Your task to perform on an android device: see tabs open on other devices in the chrome app Image 0: 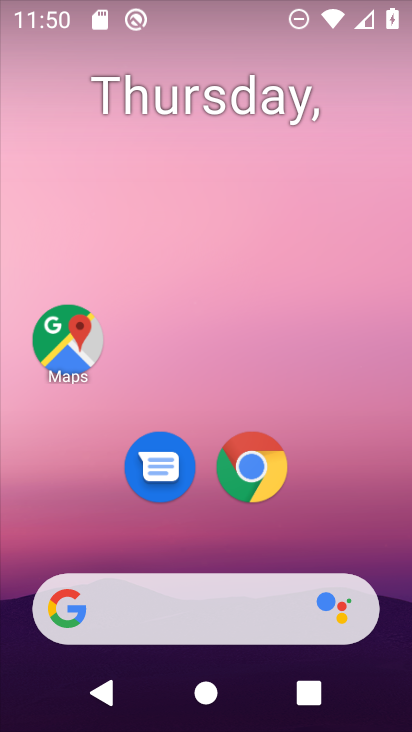
Step 0: click (253, 475)
Your task to perform on an android device: see tabs open on other devices in the chrome app Image 1: 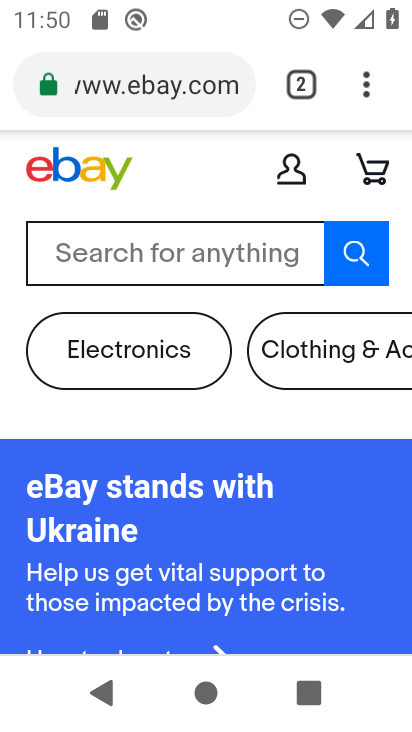
Step 1: click (366, 85)
Your task to perform on an android device: see tabs open on other devices in the chrome app Image 2: 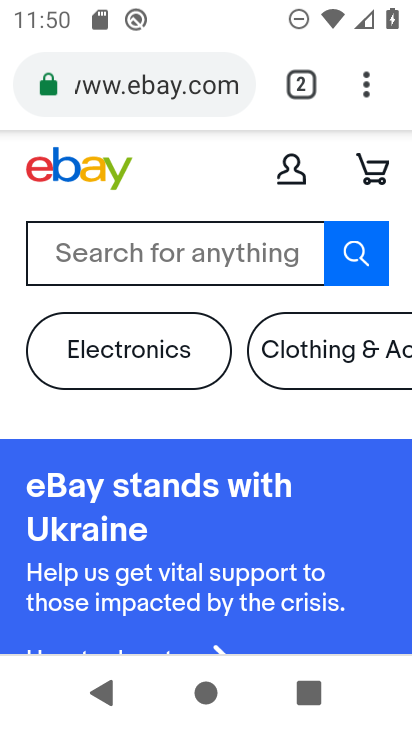
Step 2: drag from (366, 85) to (103, 394)
Your task to perform on an android device: see tabs open on other devices in the chrome app Image 3: 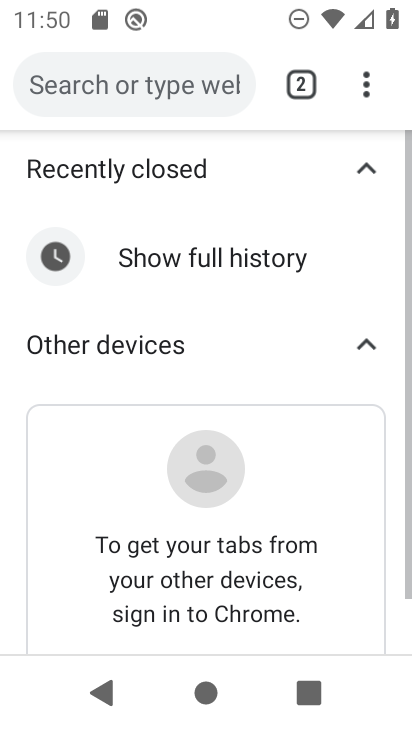
Step 3: drag from (191, 561) to (174, 255)
Your task to perform on an android device: see tabs open on other devices in the chrome app Image 4: 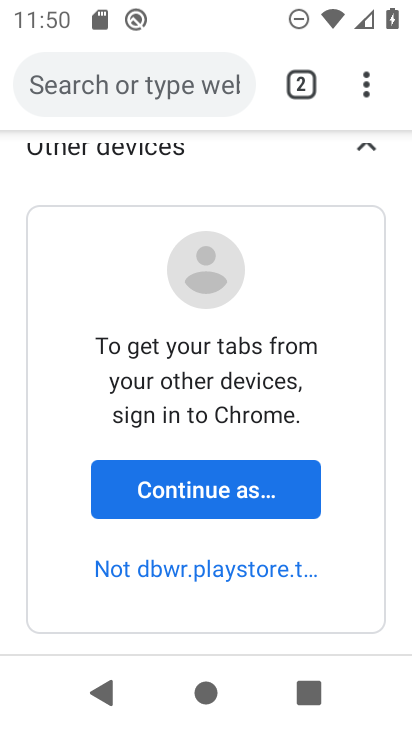
Step 4: click (199, 473)
Your task to perform on an android device: see tabs open on other devices in the chrome app Image 5: 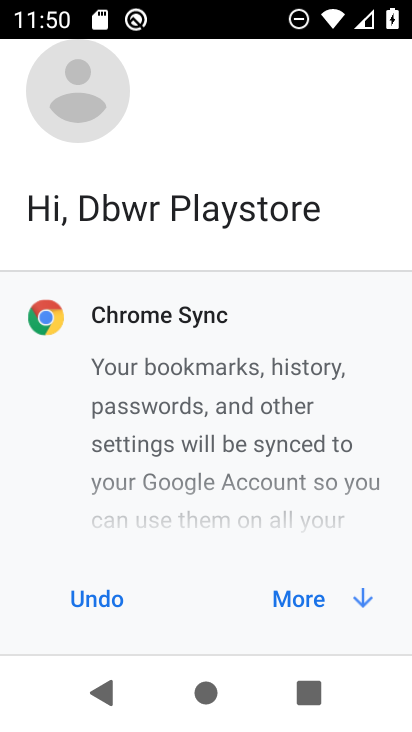
Step 5: click (274, 596)
Your task to perform on an android device: see tabs open on other devices in the chrome app Image 6: 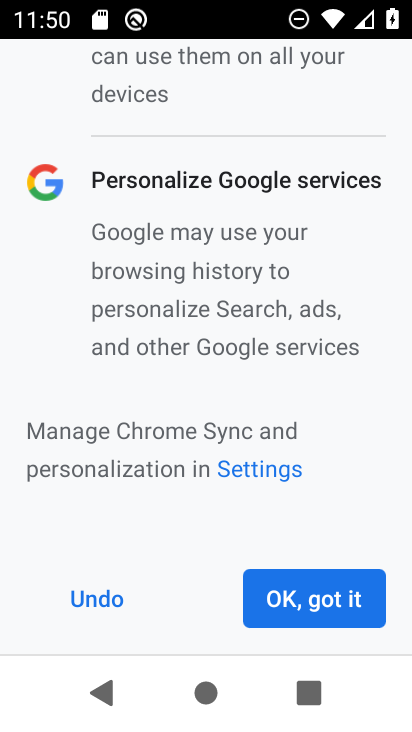
Step 6: click (274, 596)
Your task to perform on an android device: see tabs open on other devices in the chrome app Image 7: 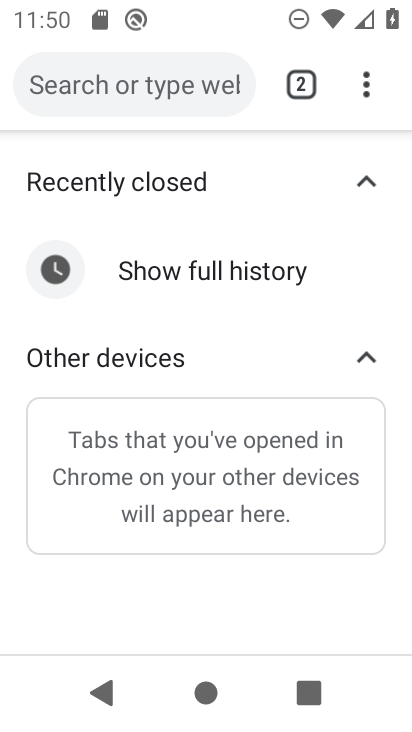
Step 7: task complete